Your task to perform on an android device: Go to Wikipedia Image 0: 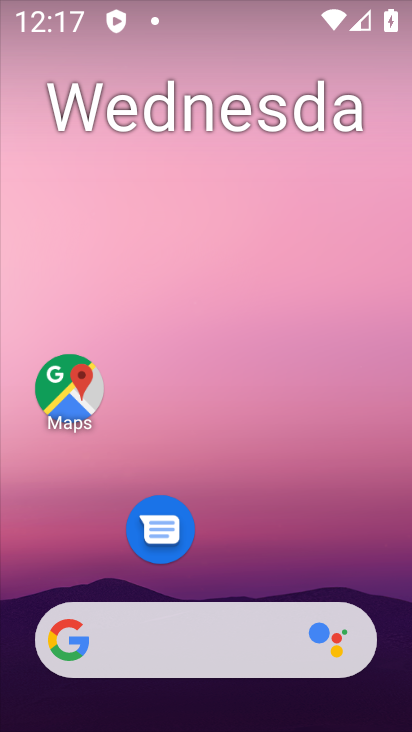
Step 0: drag from (175, 599) to (315, 3)
Your task to perform on an android device: Go to Wikipedia Image 1: 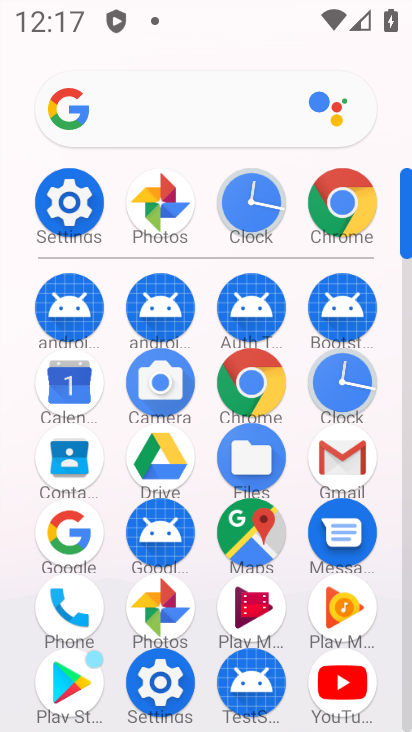
Step 1: click (256, 386)
Your task to perform on an android device: Go to Wikipedia Image 2: 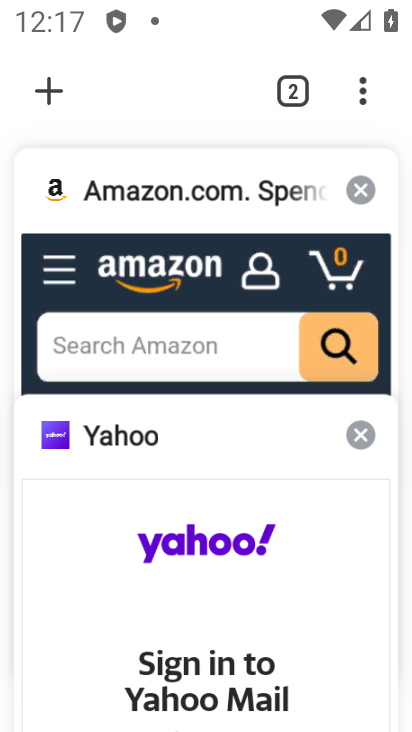
Step 2: click (61, 94)
Your task to perform on an android device: Go to Wikipedia Image 3: 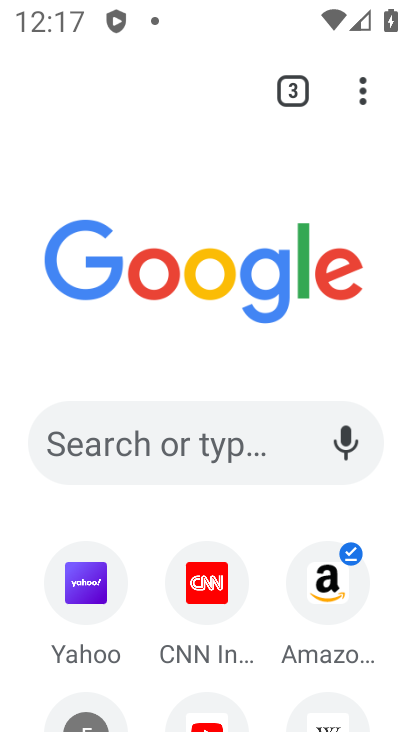
Step 3: drag from (266, 685) to (263, 431)
Your task to perform on an android device: Go to Wikipedia Image 4: 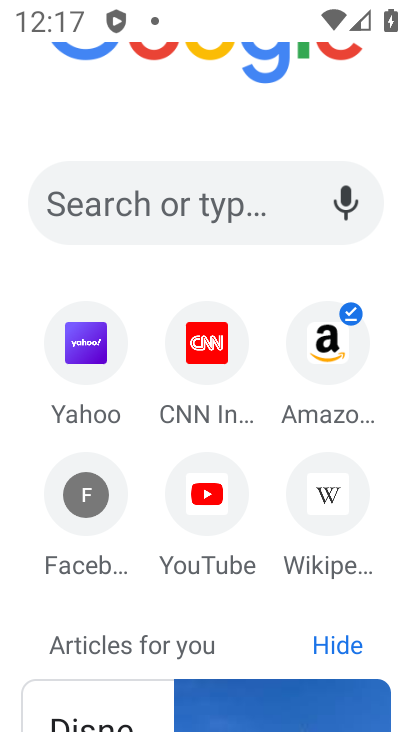
Step 4: click (307, 492)
Your task to perform on an android device: Go to Wikipedia Image 5: 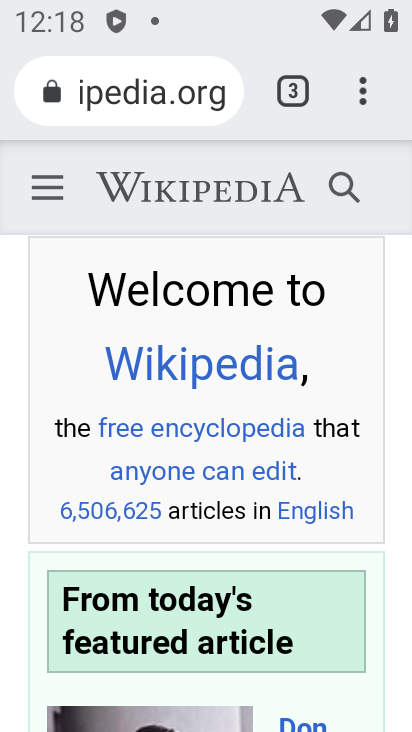
Step 5: task complete